Your task to perform on an android device: Open wifi settings Image 0: 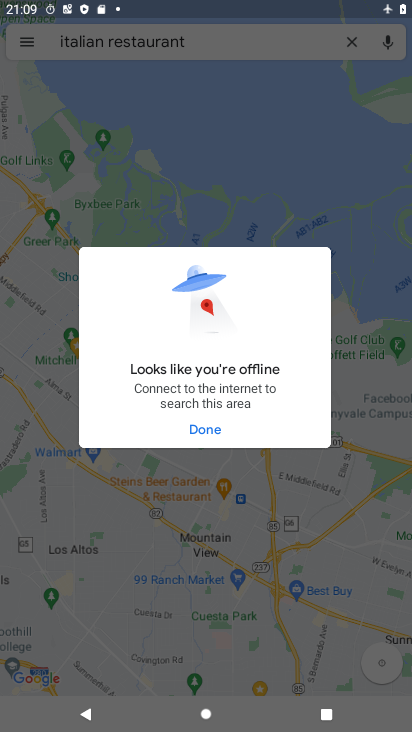
Step 0: press home button
Your task to perform on an android device: Open wifi settings Image 1: 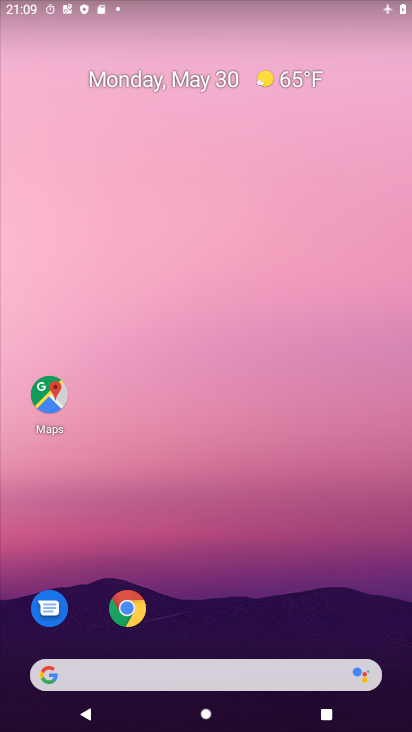
Step 1: drag from (211, 610) to (185, 157)
Your task to perform on an android device: Open wifi settings Image 2: 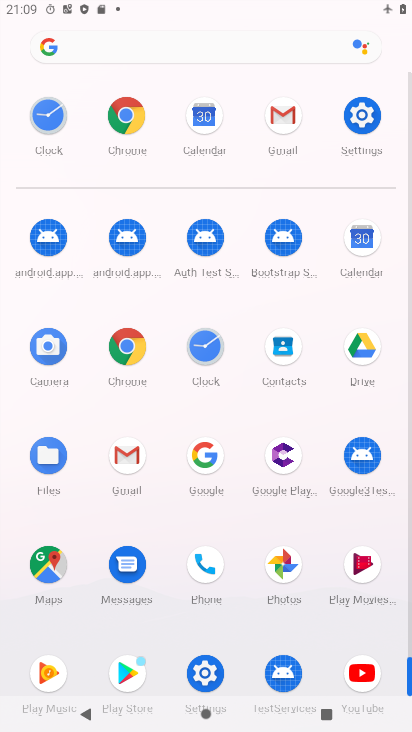
Step 2: click (340, 122)
Your task to perform on an android device: Open wifi settings Image 3: 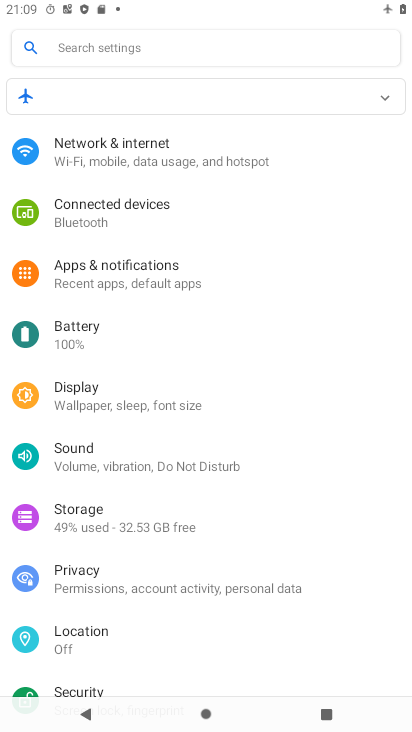
Step 3: click (125, 165)
Your task to perform on an android device: Open wifi settings Image 4: 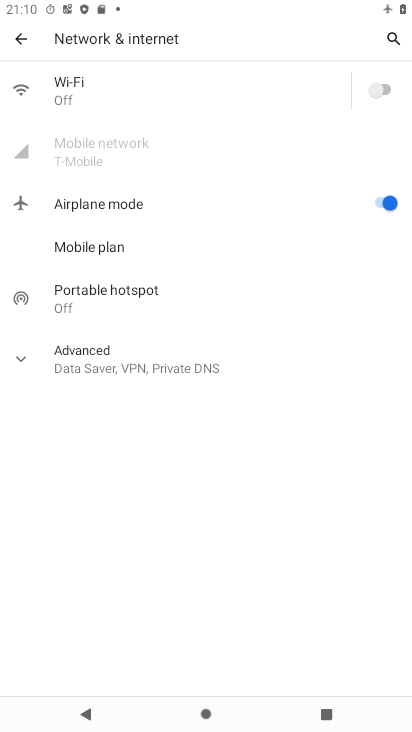
Step 4: click (106, 88)
Your task to perform on an android device: Open wifi settings Image 5: 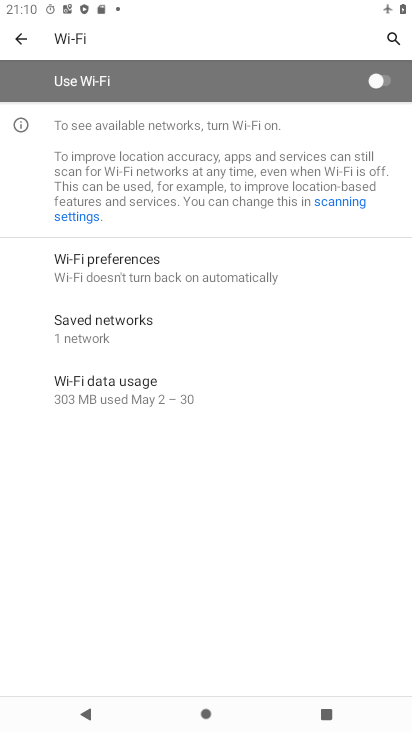
Step 5: task complete